Your task to perform on an android device: turn on javascript in the chrome app Image 0: 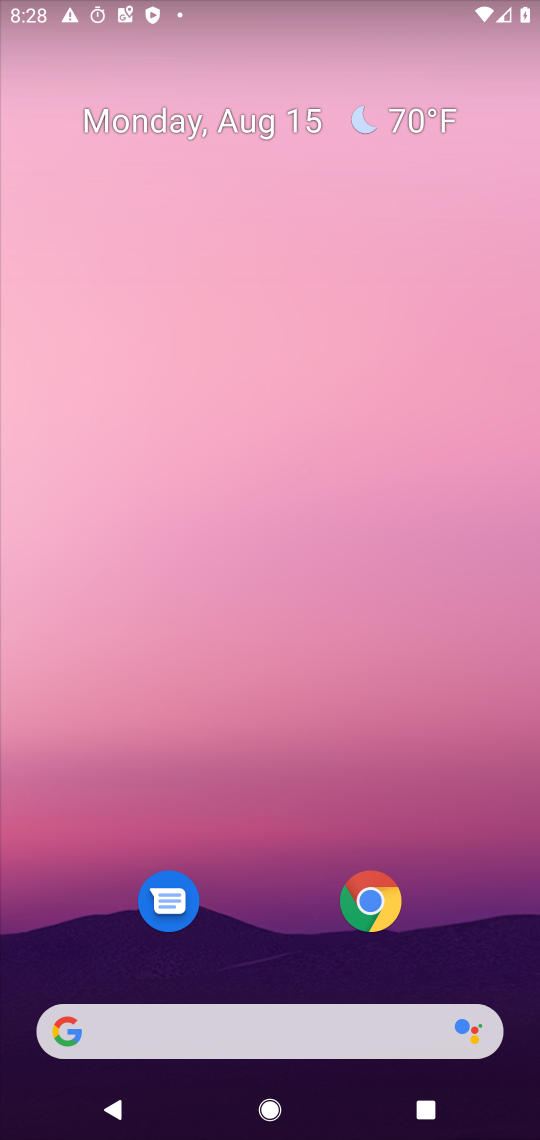
Step 0: click (369, 892)
Your task to perform on an android device: turn on javascript in the chrome app Image 1: 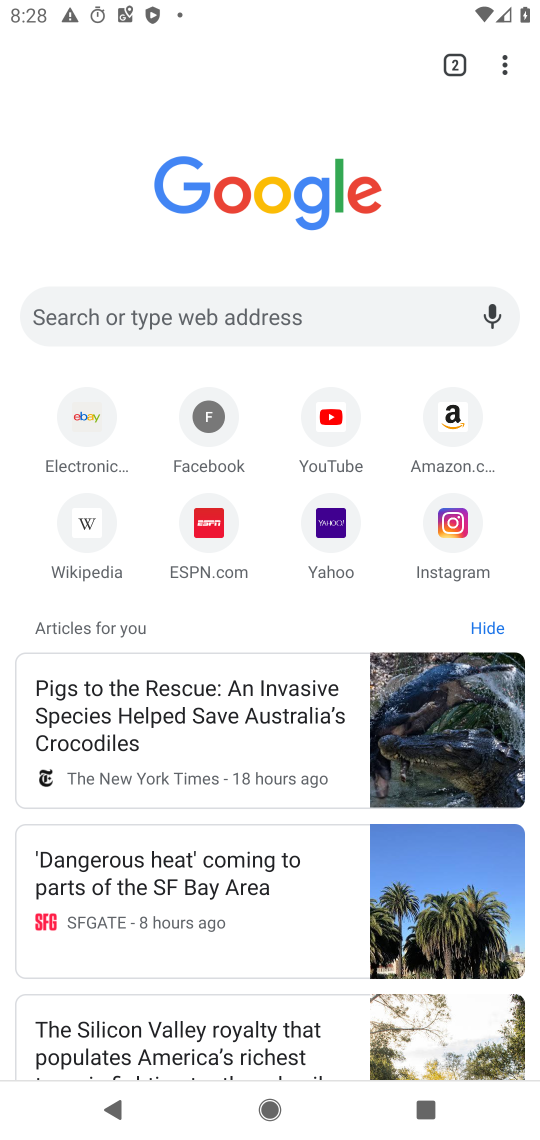
Step 1: click (507, 63)
Your task to perform on an android device: turn on javascript in the chrome app Image 2: 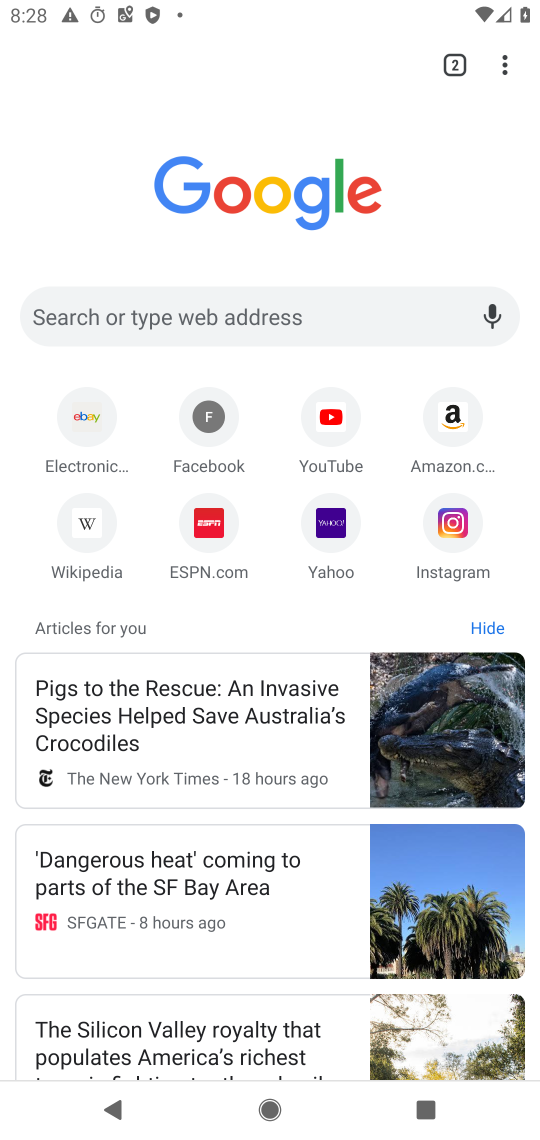
Step 2: click (509, 56)
Your task to perform on an android device: turn on javascript in the chrome app Image 3: 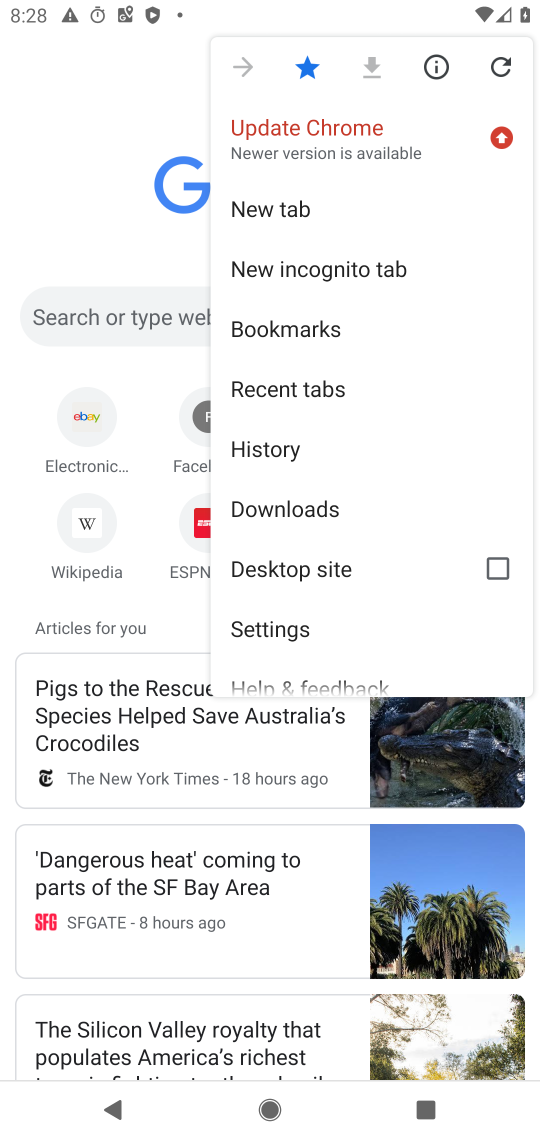
Step 3: click (259, 633)
Your task to perform on an android device: turn on javascript in the chrome app Image 4: 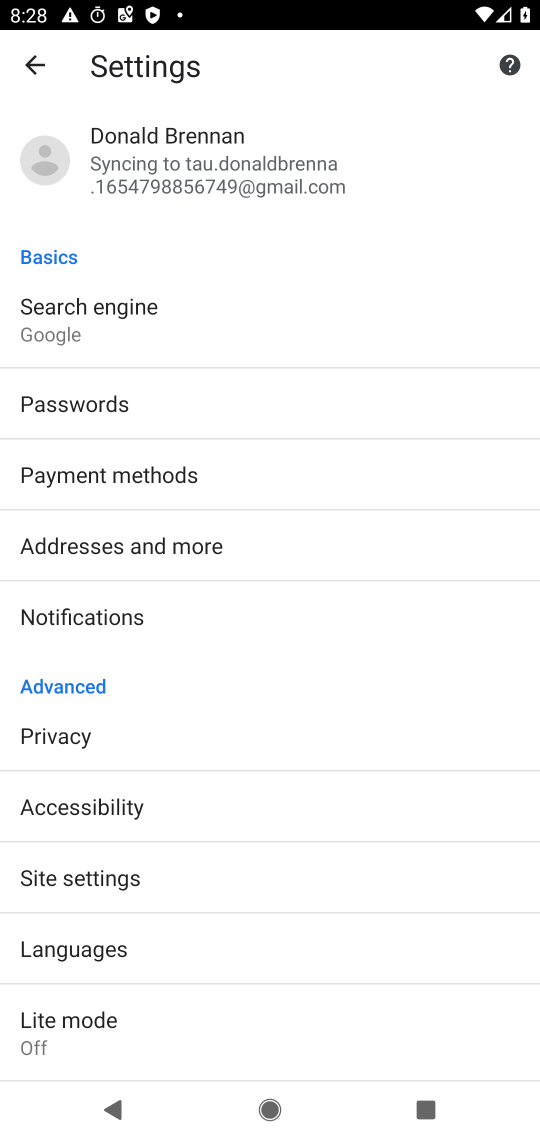
Step 4: click (106, 877)
Your task to perform on an android device: turn on javascript in the chrome app Image 5: 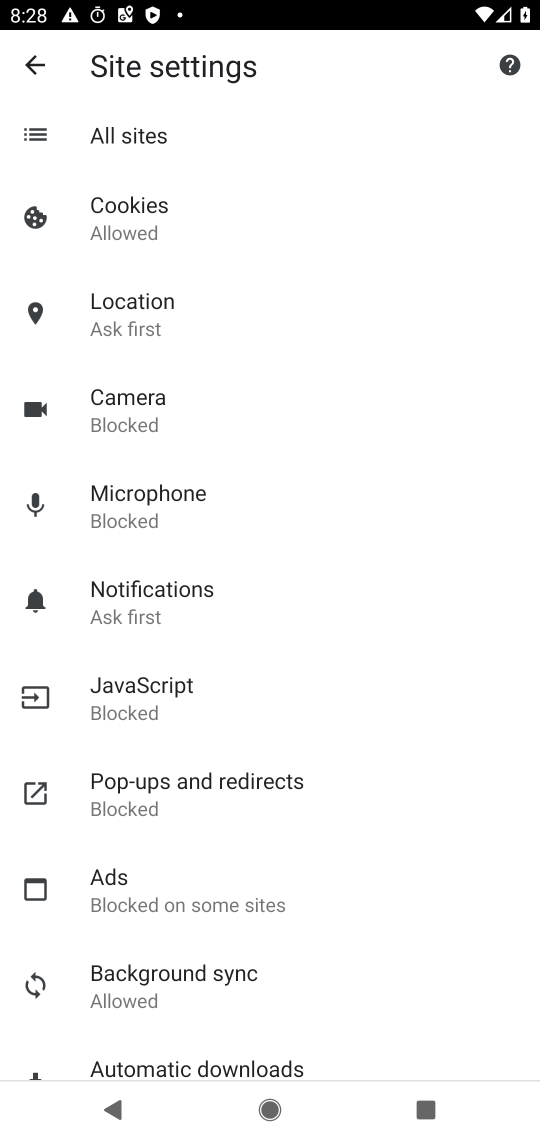
Step 5: click (127, 717)
Your task to perform on an android device: turn on javascript in the chrome app Image 6: 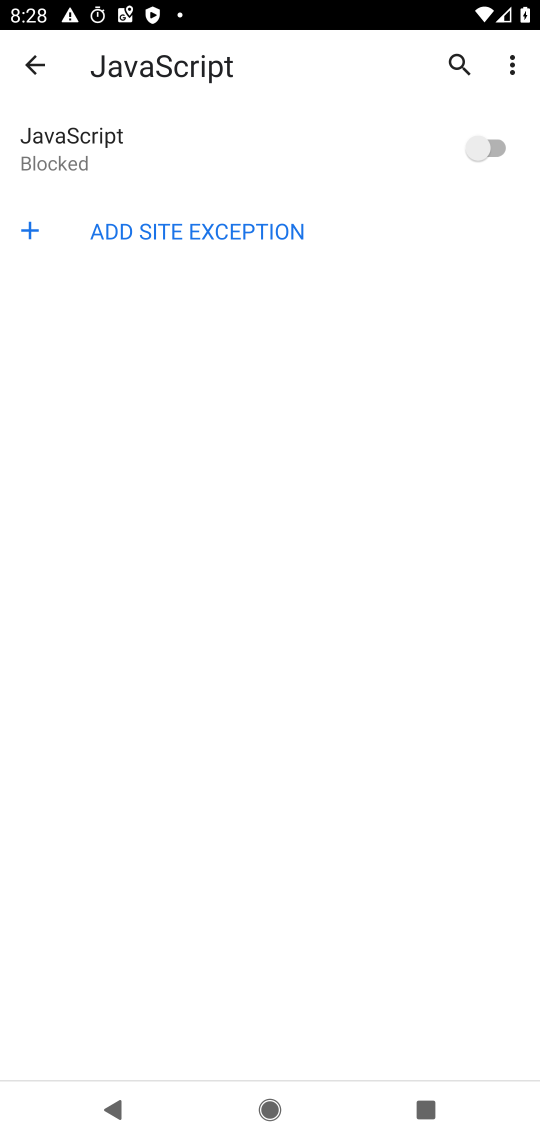
Step 6: click (499, 142)
Your task to perform on an android device: turn on javascript in the chrome app Image 7: 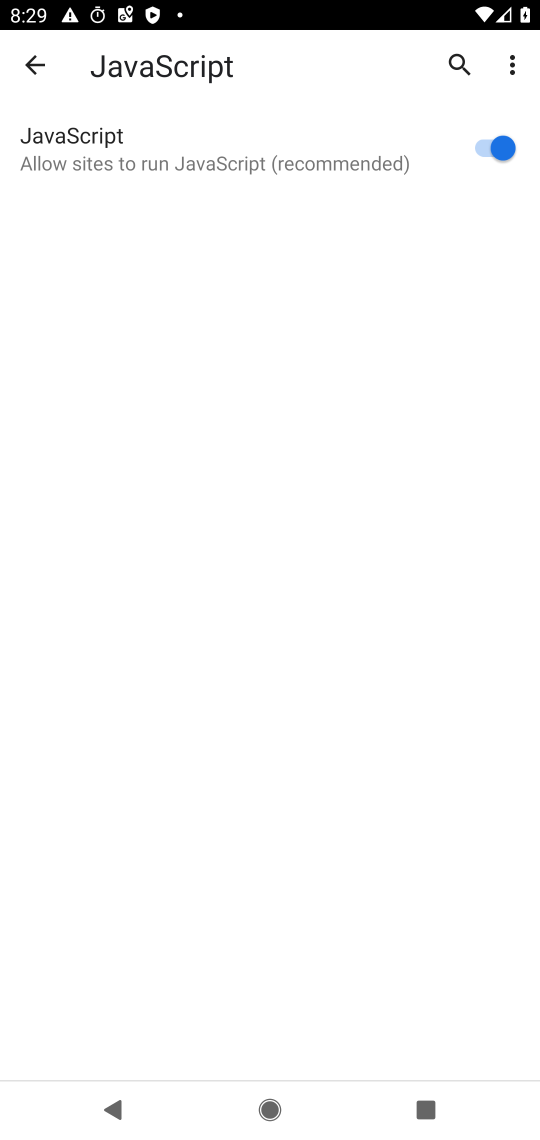
Step 7: task complete